Your task to perform on an android device: Open wifi settings Image 0: 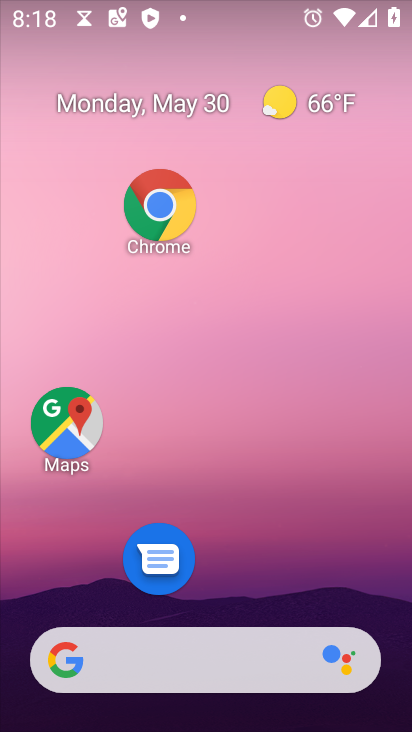
Step 0: drag from (239, 702) to (202, 240)
Your task to perform on an android device: Open wifi settings Image 1: 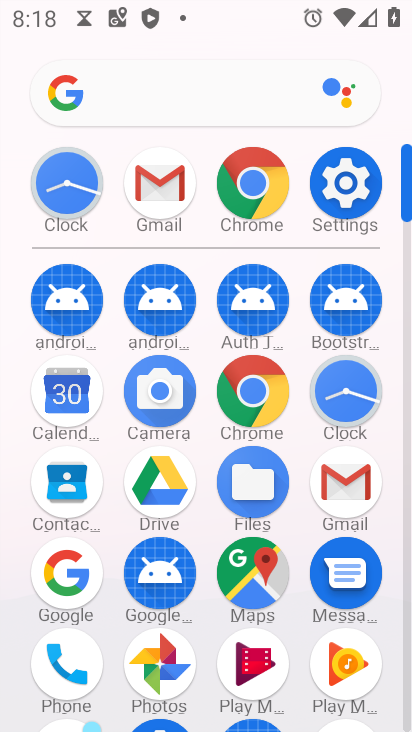
Step 1: click (353, 187)
Your task to perform on an android device: Open wifi settings Image 2: 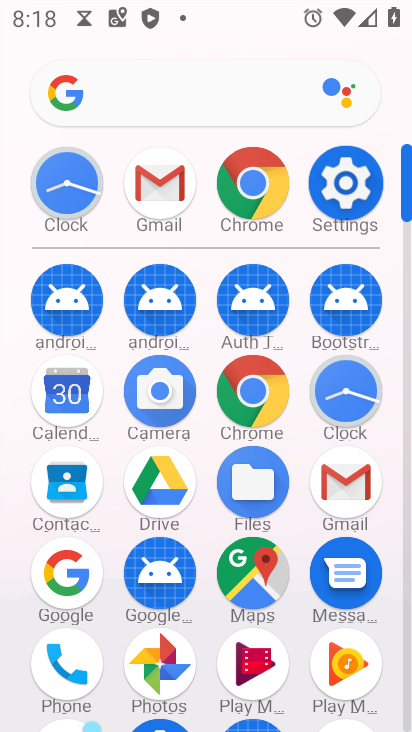
Step 2: click (353, 187)
Your task to perform on an android device: Open wifi settings Image 3: 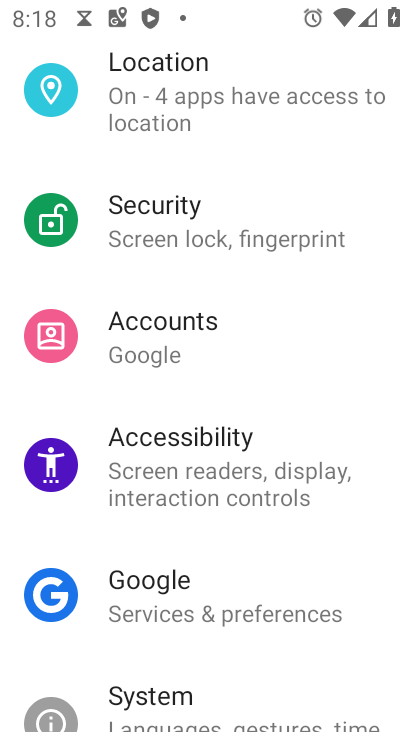
Step 3: click (171, 472)
Your task to perform on an android device: Open wifi settings Image 4: 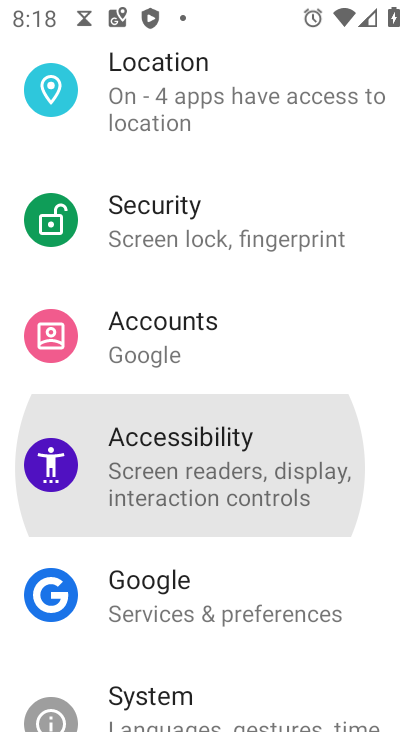
Step 4: click (228, 546)
Your task to perform on an android device: Open wifi settings Image 5: 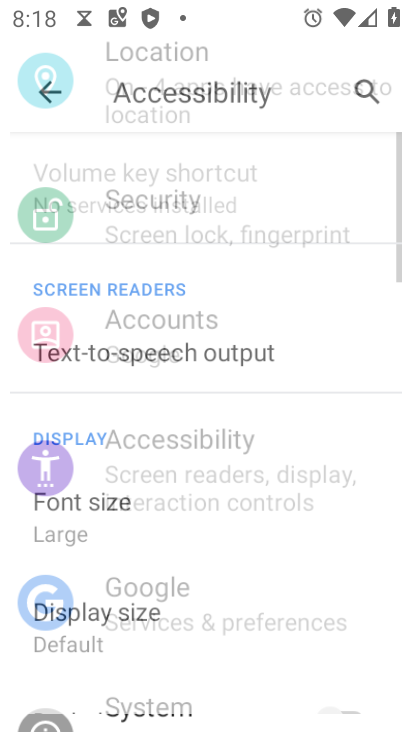
Step 5: drag from (237, 322) to (263, 585)
Your task to perform on an android device: Open wifi settings Image 6: 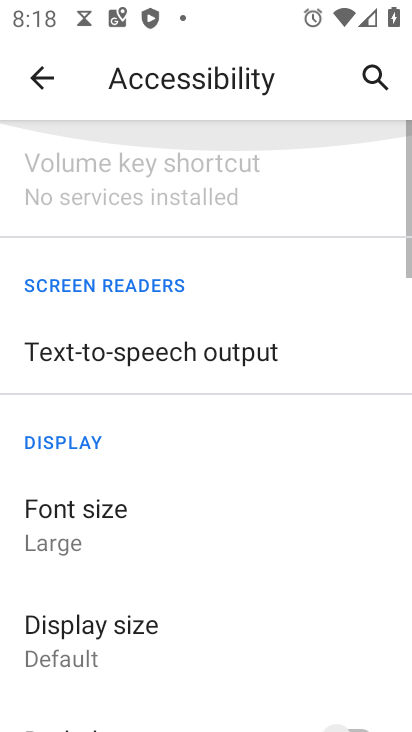
Step 6: drag from (279, 261) to (278, 605)
Your task to perform on an android device: Open wifi settings Image 7: 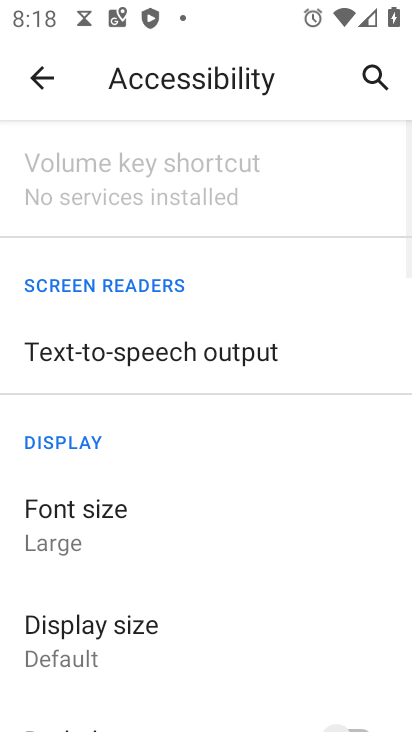
Step 7: click (43, 79)
Your task to perform on an android device: Open wifi settings Image 8: 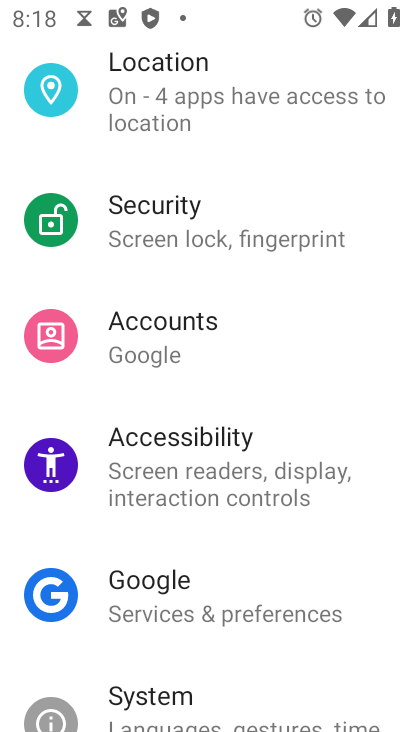
Step 8: click (185, 541)
Your task to perform on an android device: Open wifi settings Image 9: 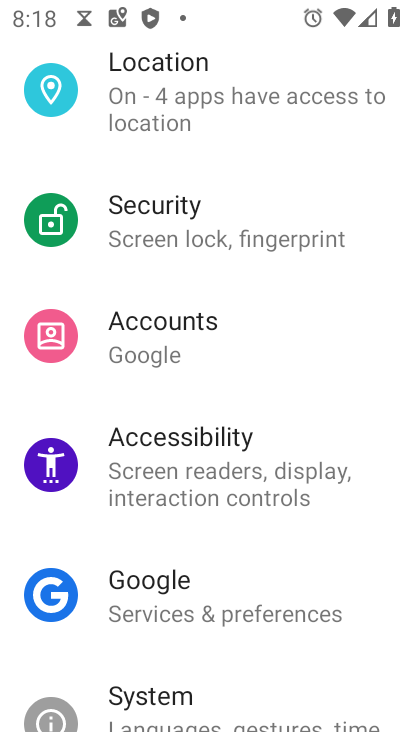
Step 9: drag from (194, 156) to (188, 449)
Your task to perform on an android device: Open wifi settings Image 10: 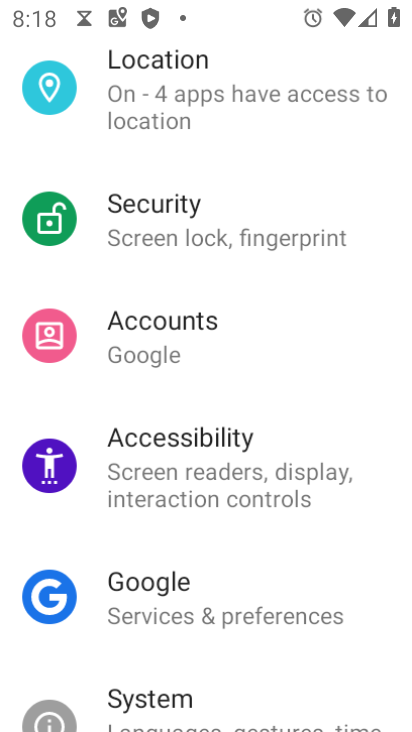
Step 10: drag from (143, 247) to (194, 523)
Your task to perform on an android device: Open wifi settings Image 11: 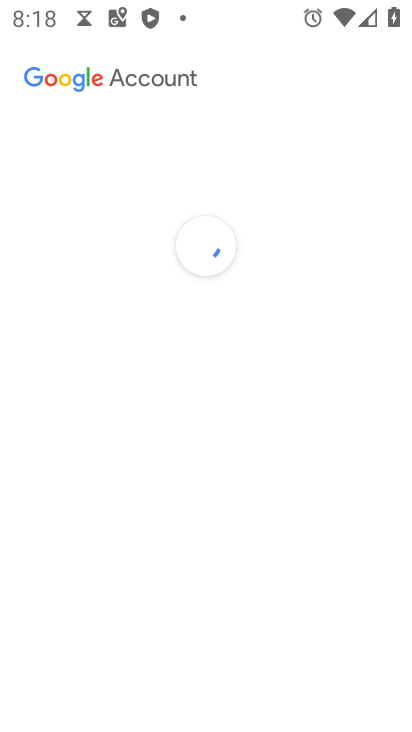
Step 11: drag from (140, 215) to (198, 518)
Your task to perform on an android device: Open wifi settings Image 12: 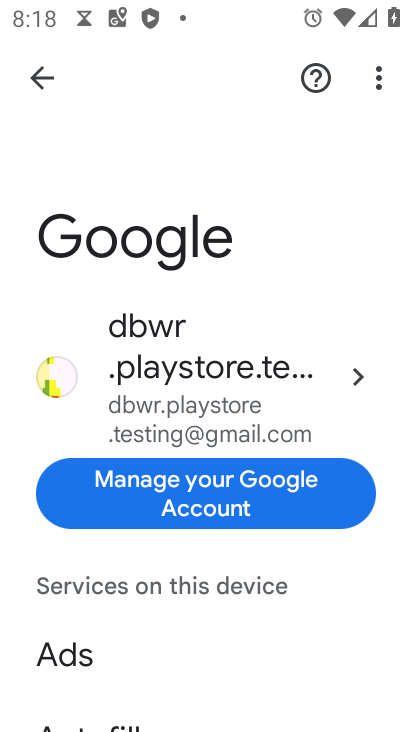
Step 12: press back button
Your task to perform on an android device: Open wifi settings Image 13: 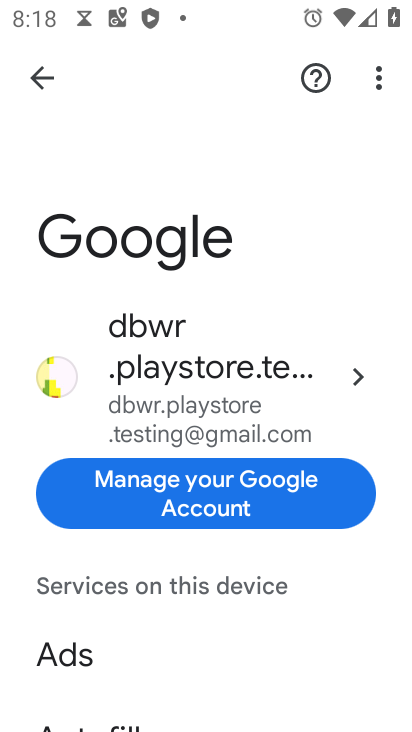
Step 13: press back button
Your task to perform on an android device: Open wifi settings Image 14: 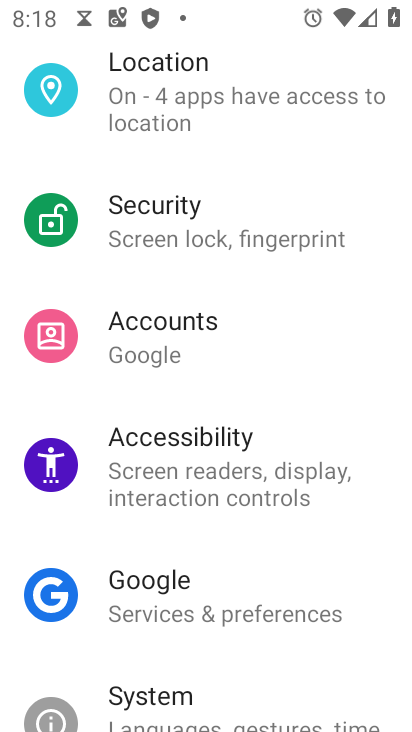
Step 14: press back button
Your task to perform on an android device: Open wifi settings Image 15: 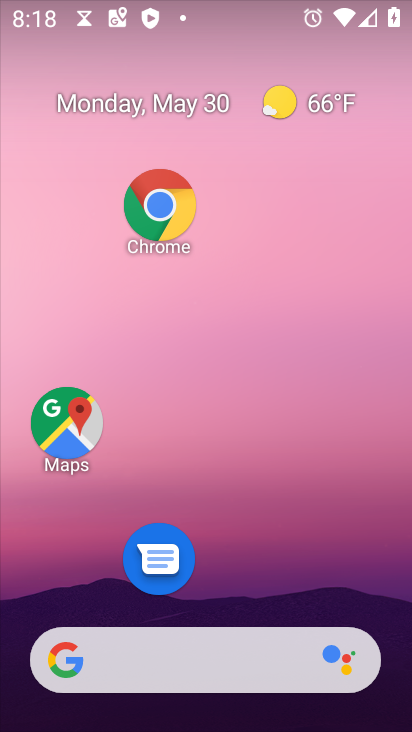
Step 15: drag from (214, 653) to (225, 117)
Your task to perform on an android device: Open wifi settings Image 16: 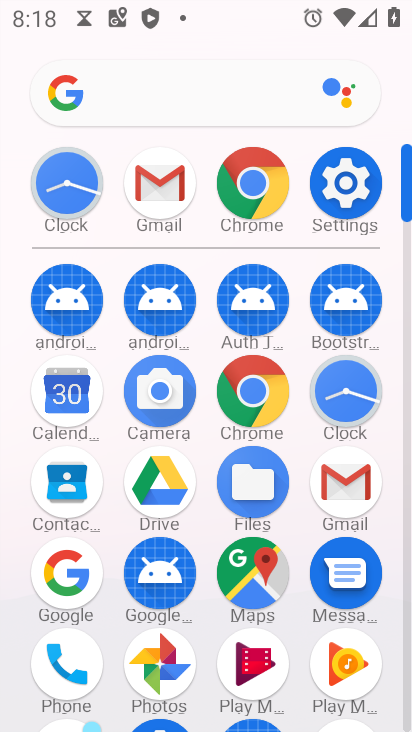
Step 16: click (346, 180)
Your task to perform on an android device: Open wifi settings Image 17: 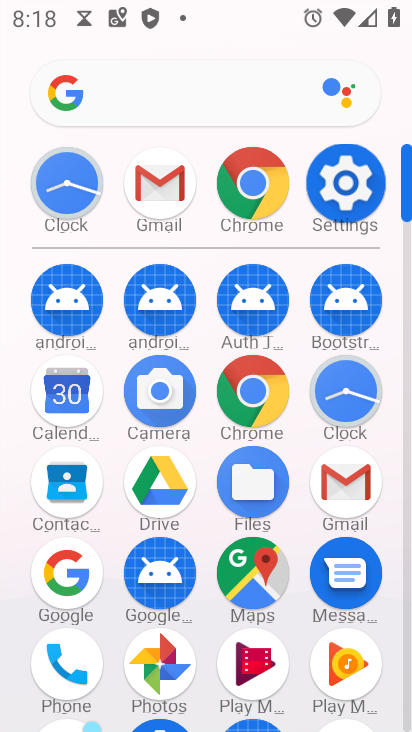
Step 17: click (346, 180)
Your task to perform on an android device: Open wifi settings Image 18: 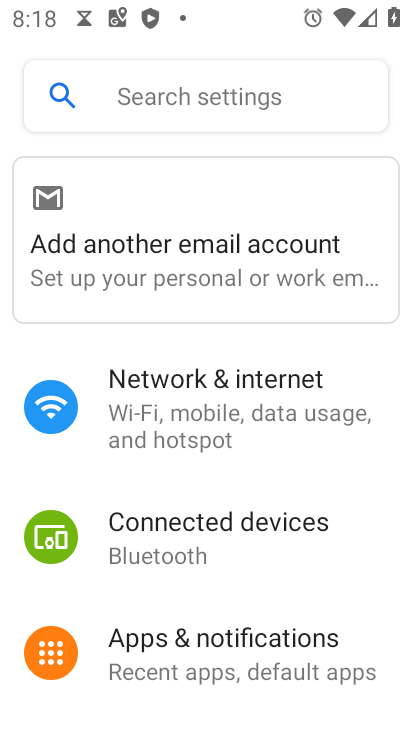
Step 18: click (193, 407)
Your task to perform on an android device: Open wifi settings Image 19: 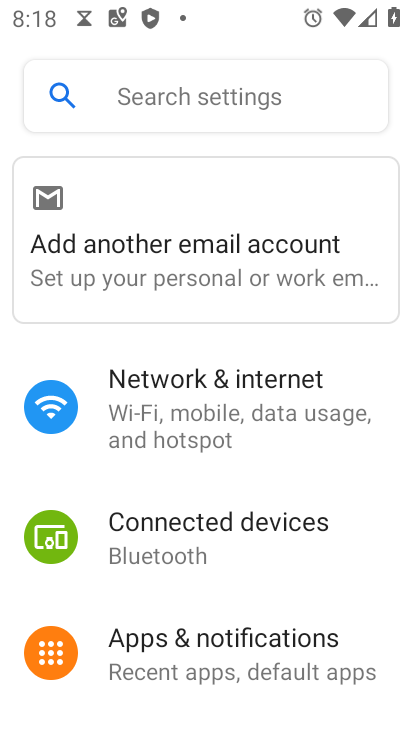
Step 19: click (193, 407)
Your task to perform on an android device: Open wifi settings Image 20: 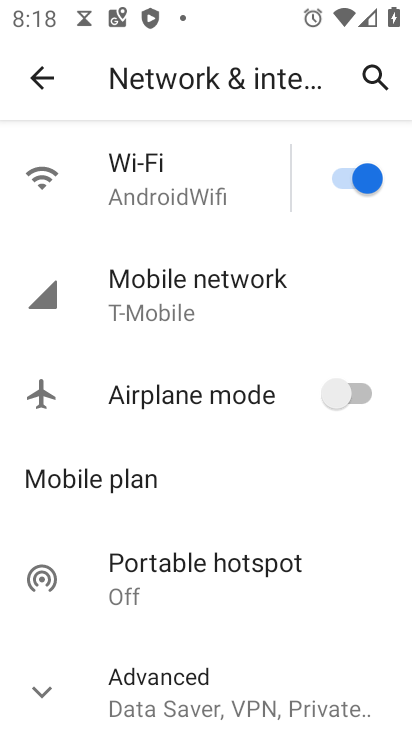
Step 20: task complete